Your task to perform on an android device: turn off smart reply in the gmail app Image 0: 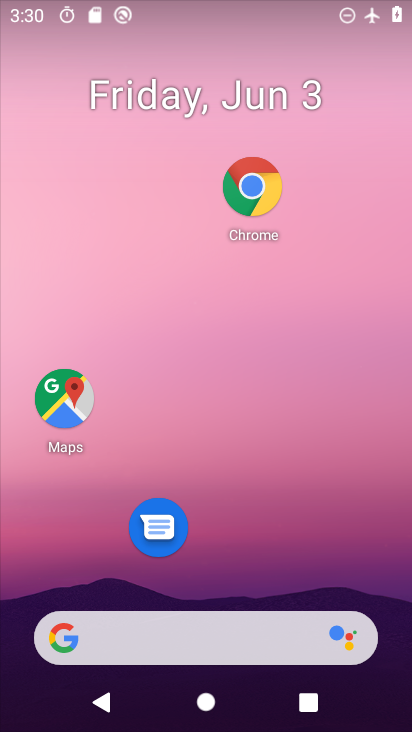
Step 0: drag from (161, 490) to (131, 212)
Your task to perform on an android device: turn off smart reply in the gmail app Image 1: 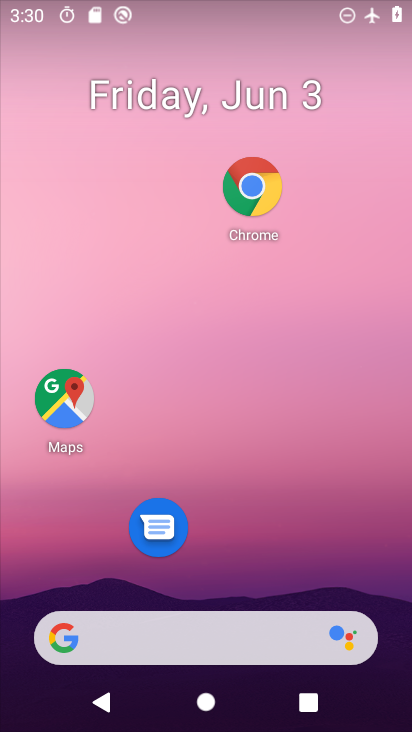
Step 1: drag from (170, 506) to (209, 156)
Your task to perform on an android device: turn off smart reply in the gmail app Image 2: 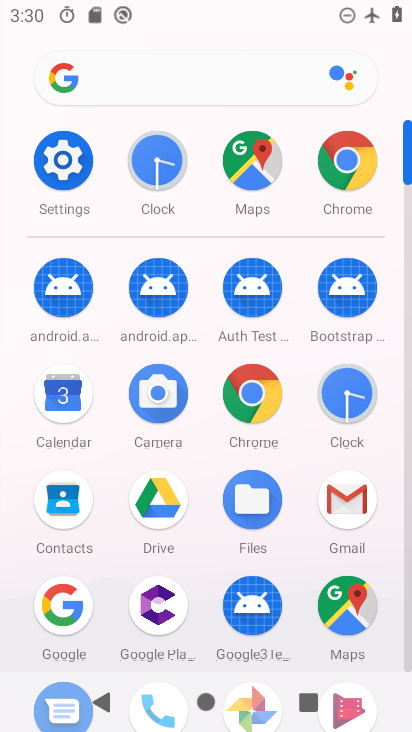
Step 2: click (343, 502)
Your task to perform on an android device: turn off smart reply in the gmail app Image 3: 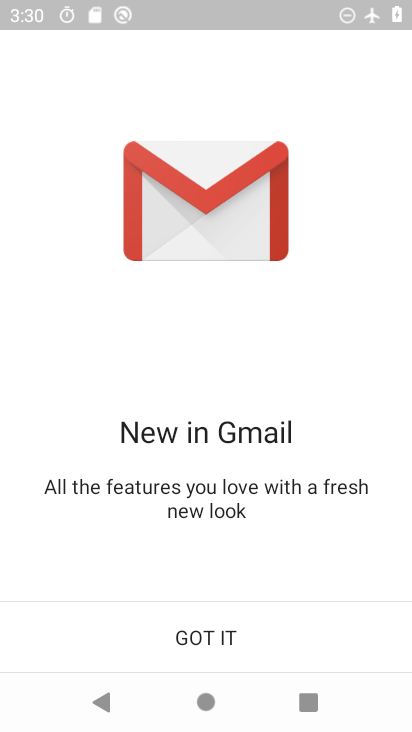
Step 3: click (212, 640)
Your task to perform on an android device: turn off smart reply in the gmail app Image 4: 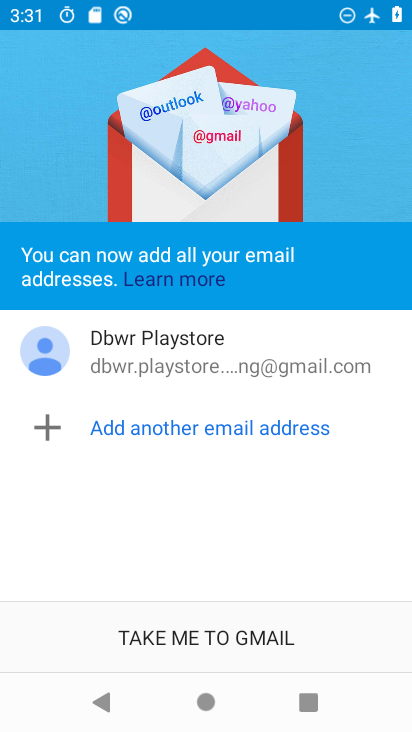
Step 4: click (226, 648)
Your task to perform on an android device: turn off smart reply in the gmail app Image 5: 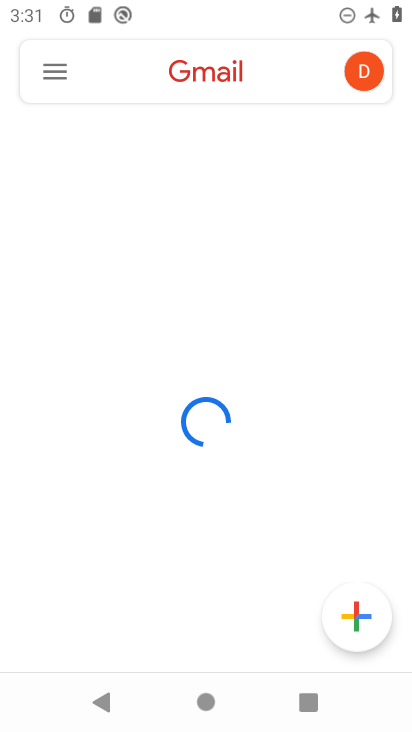
Step 5: click (49, 63)
Your task to perform on an android device: turn off smart reply in the gmail app Image 6: 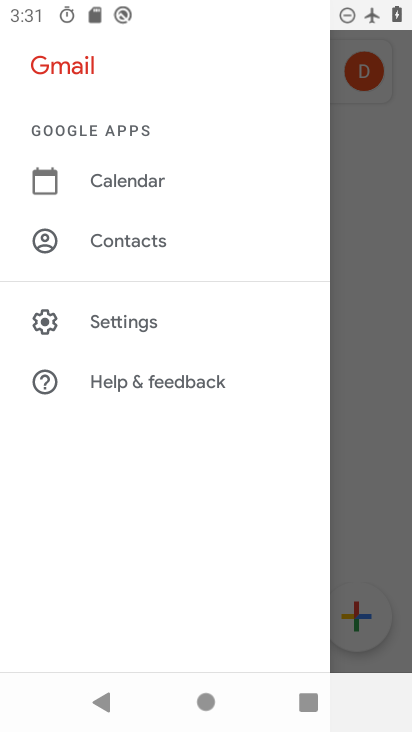
Step 6: click (119, 302)
Your task to perform on an android device: turn off smart reply in the gmail app Image 7: 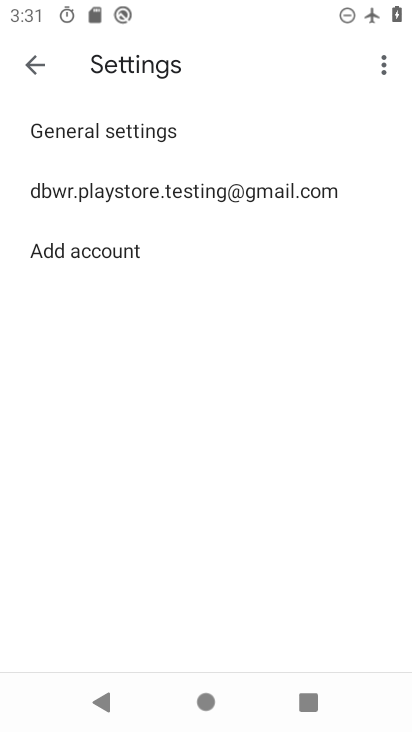
Step 7: click (165, 200)
Your task to perform on an android device: turn off smart reply in the gmail app Image 8: 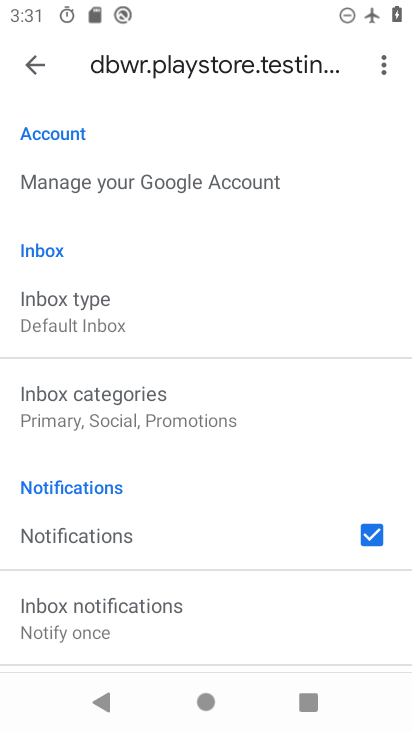
Step 8: drag from (195, 604) to (268, 95)
Your task to perform on an android device: turn off smart reply in the gmail app Image 9: 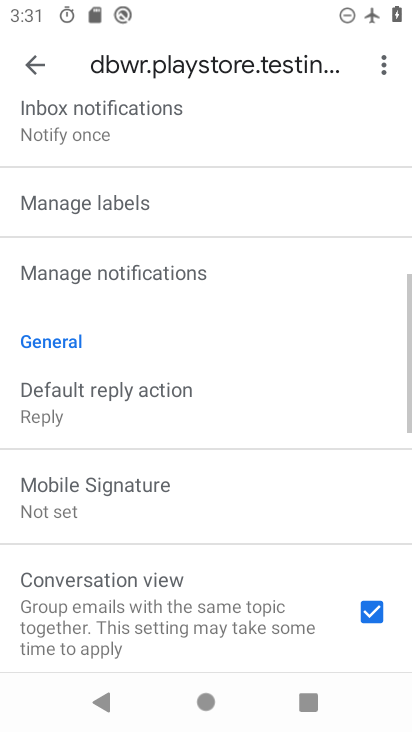
Step 9: drag from (227, 504) to (287, 96)
Your task to perform on an android device: turn off smart reply in the gmail app Image 10: 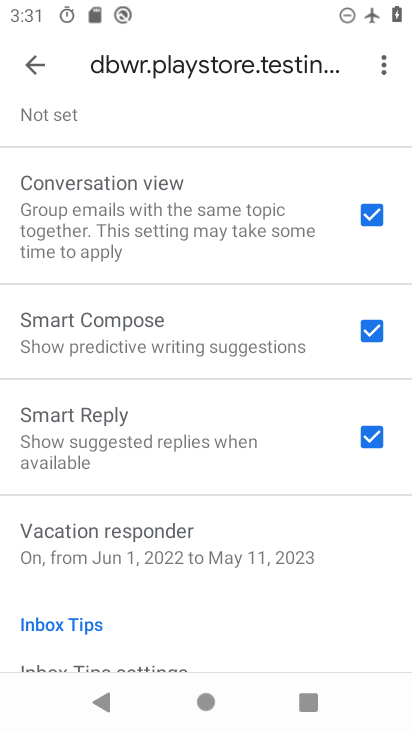
Step 10: click (371, 422)
Your task to perform on an android device: turn off smart reply in the gmail app Image 11: 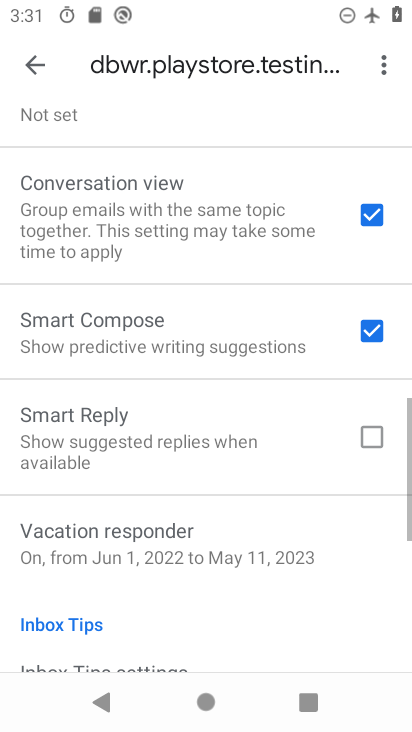
Step 11: task complete